Your task to perform on an android device: turn smart compose on in the gmail app Image 0: 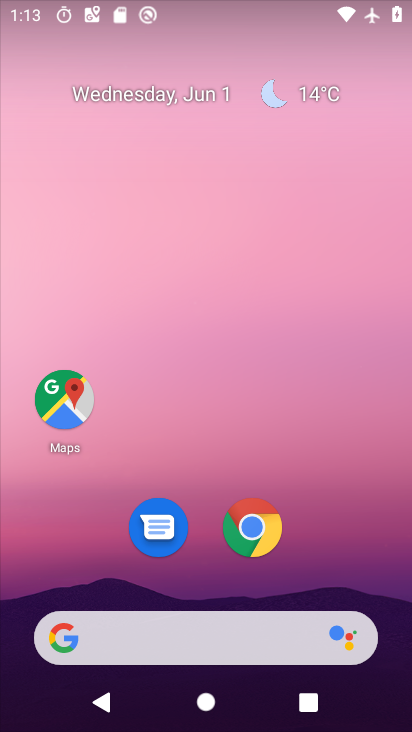
Step 0: drag from (318, 574) to (287, 1)
Your task to perform on an android device: turn smart compose on in the gmail app Image 1: 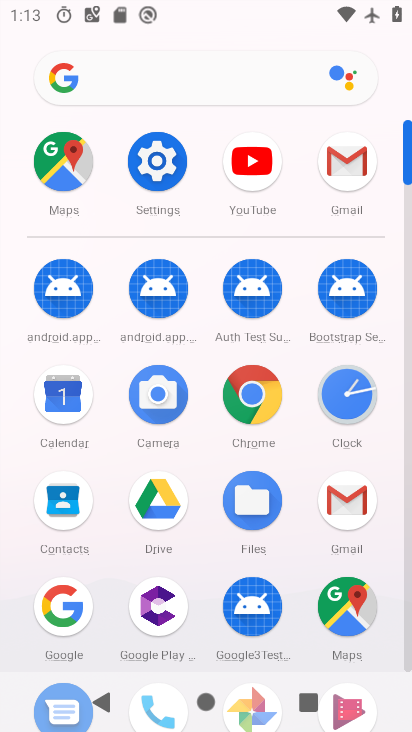
Step 1: click (340, 162)
Your task to perform on an android device: turn smart compose on in the gmail app Image 2: 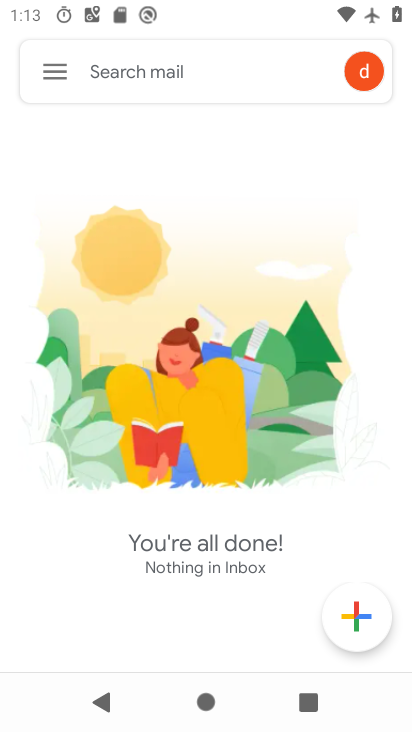
Step 2: click (55, 70)
Your task to perform on an android device: turn smart compose on in the gmail app Image 3: 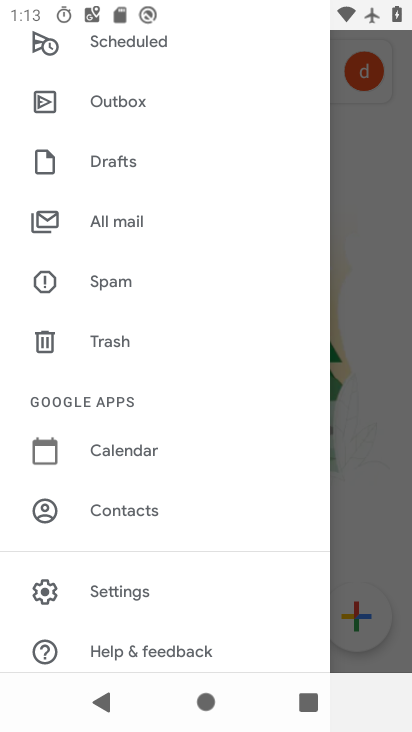
Step 3: click (115, 597)
Your task to perform on an android device: turn smart compose on in the gmail app Image 4: 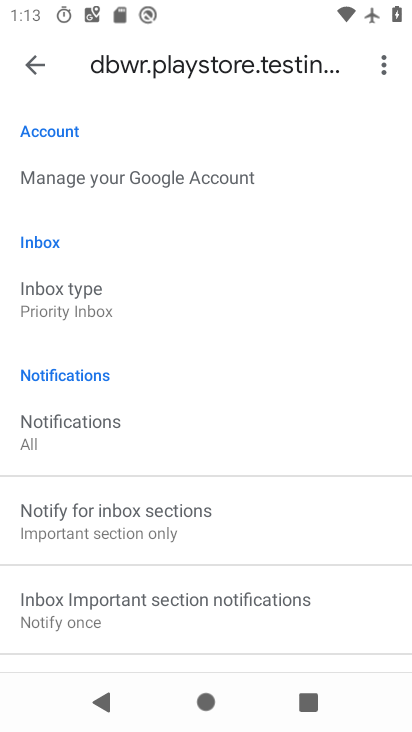
Step 4: task complete